Your task to perform on an android device: empty trash in google photos Image 0: 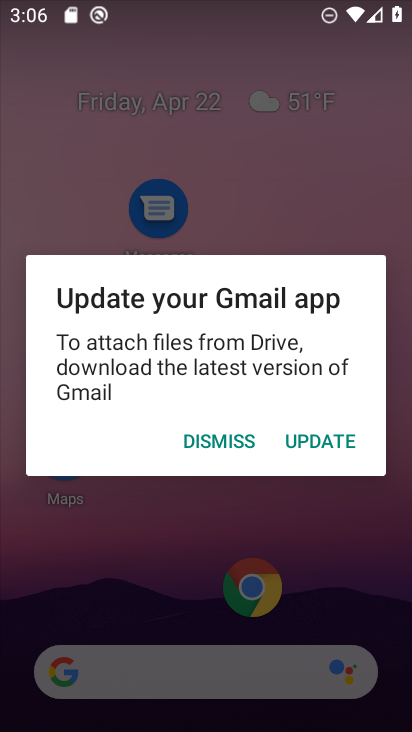
Step 0: press home button
Your task to perform on an android device: empty trash in google photos Image 1: 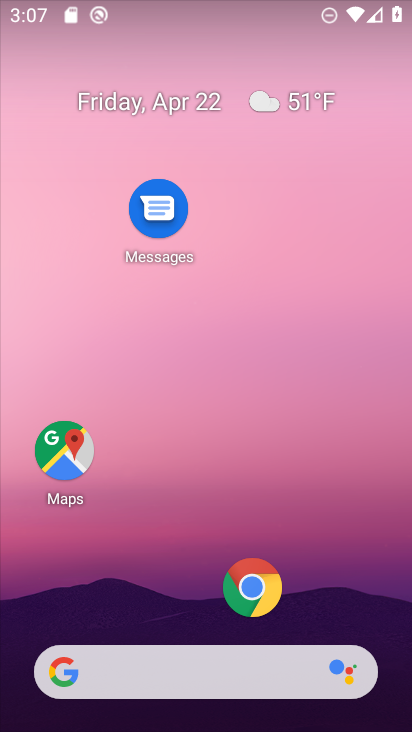
Step 1: drag from (199, 589) to (250, 152)
Your task to perform on an android device: empty trash in google photos Image 2: 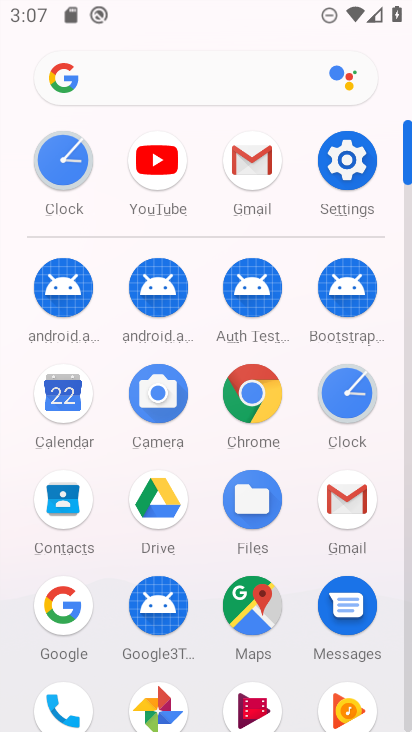
Step 2: drag from (207, 523) to (225, 380)
Your task to perform on an android device: empty trash in google photos Image 3: 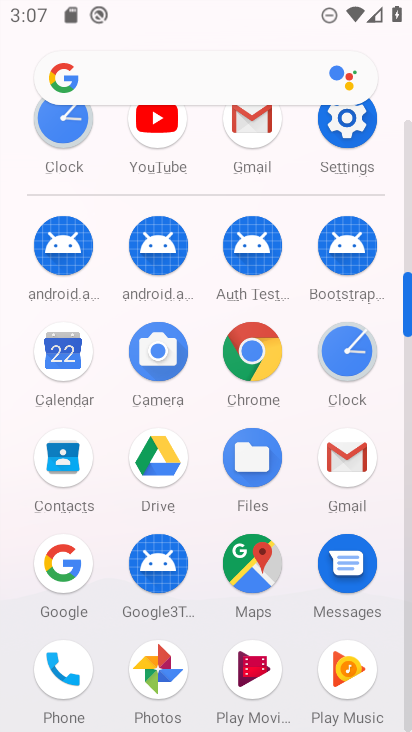
Step 3: click (147, 666)
Your task to perform on an android device: empty trash in google photos Image 4: 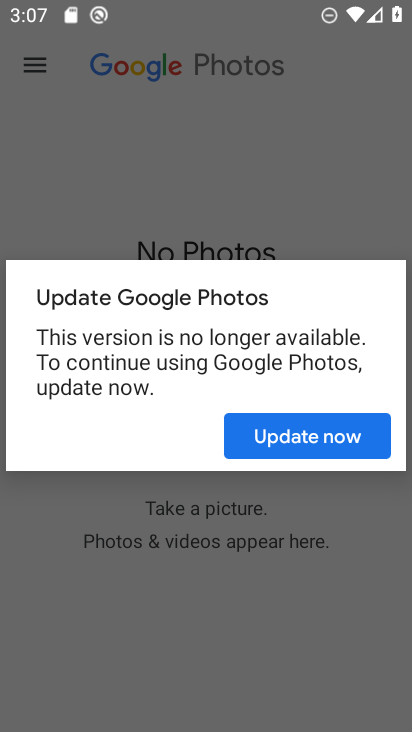
Step 4: click (290, 439)
Your task to perform on an android device: empty trash in google photos Image 5: 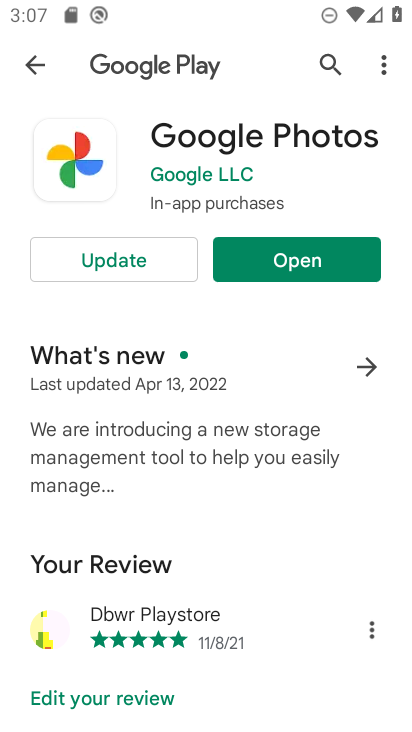
Step 5: click (317, 257)
Your task to perform on an android device: empty trash in google photos Image 6: 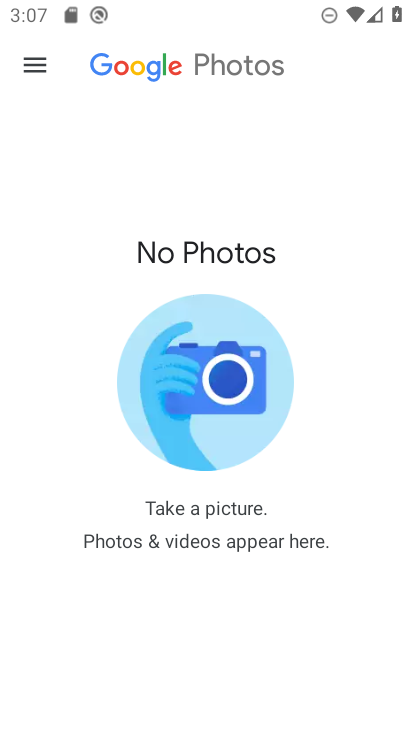
Step 6: click (40, 64)
Your task to perform on an android device: empty trash in google photos Image 7: 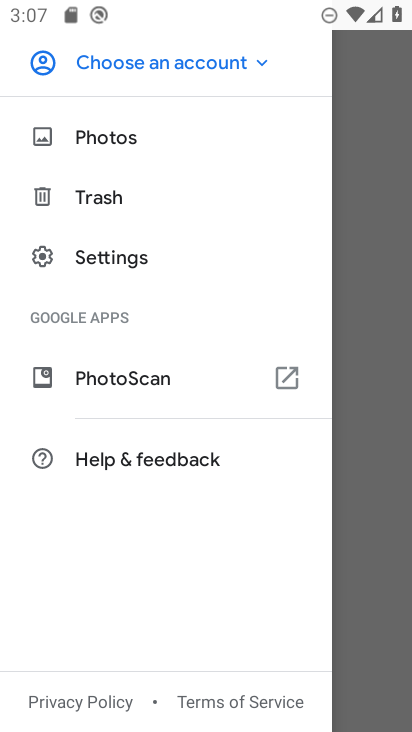
Step 7: click (127, 199)
Your task to perform on an android device: empty trash in google photos Image 8: 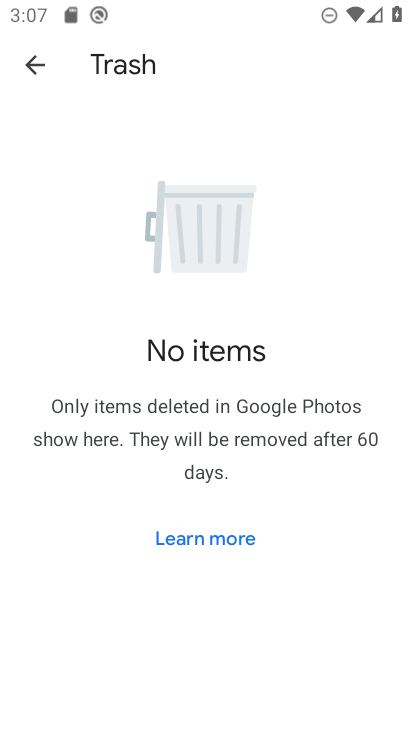
Step 8: task complete